Your task to perform on an android device: set default search engine in the chrome app Image 0: 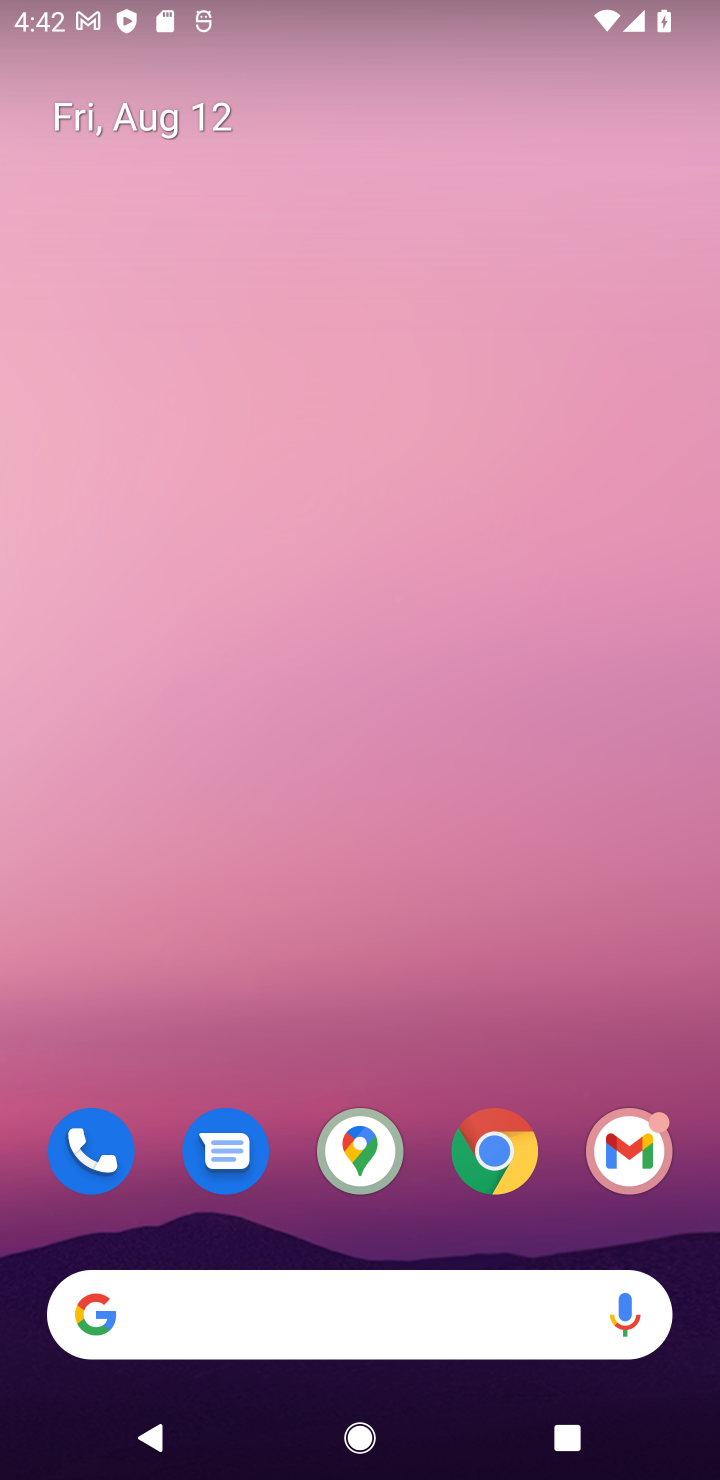
Step 0: drag from (384, 1007) to (585, 101)
Your task to perform on an android device: set default search engine in the chrome app Image 1: 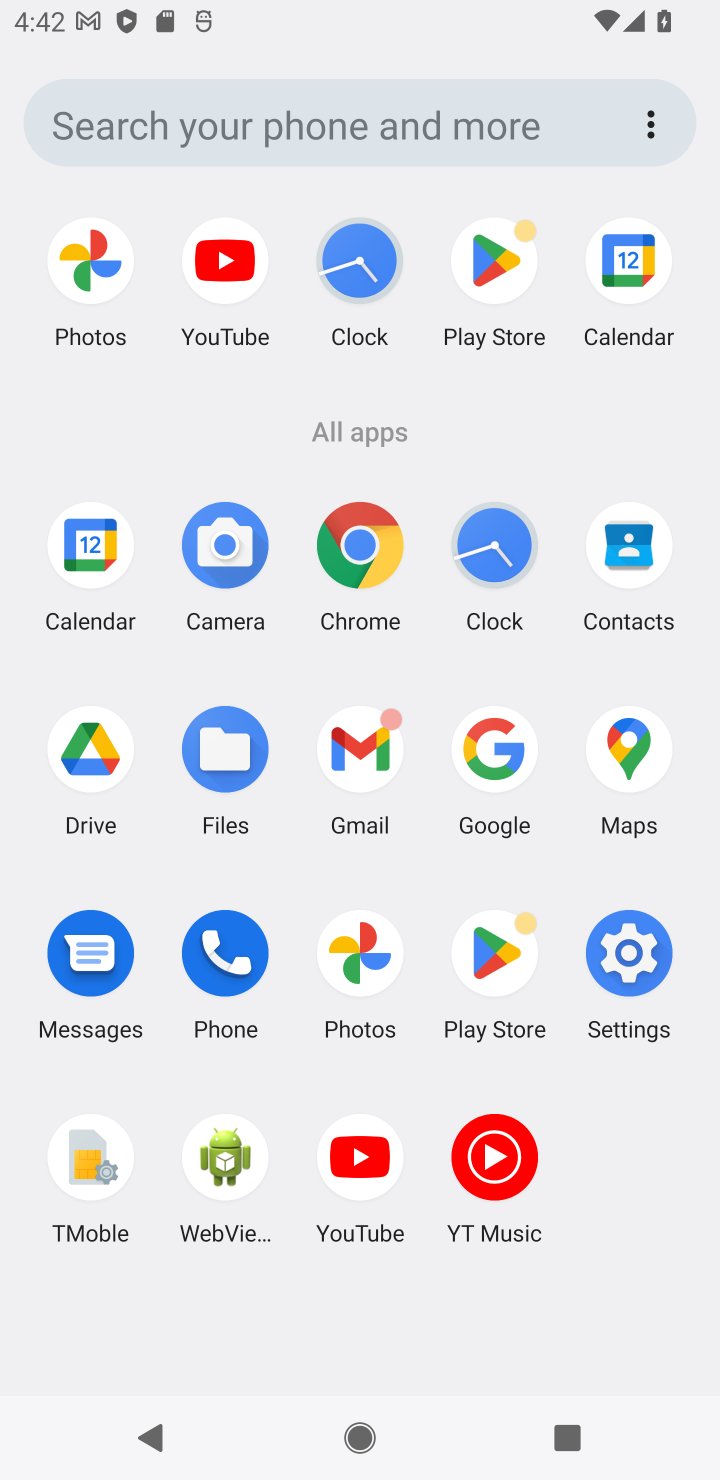
Step 1: click (346, 534)
Your task to perform on an android device: set default search engine in the chrome app Image 2: 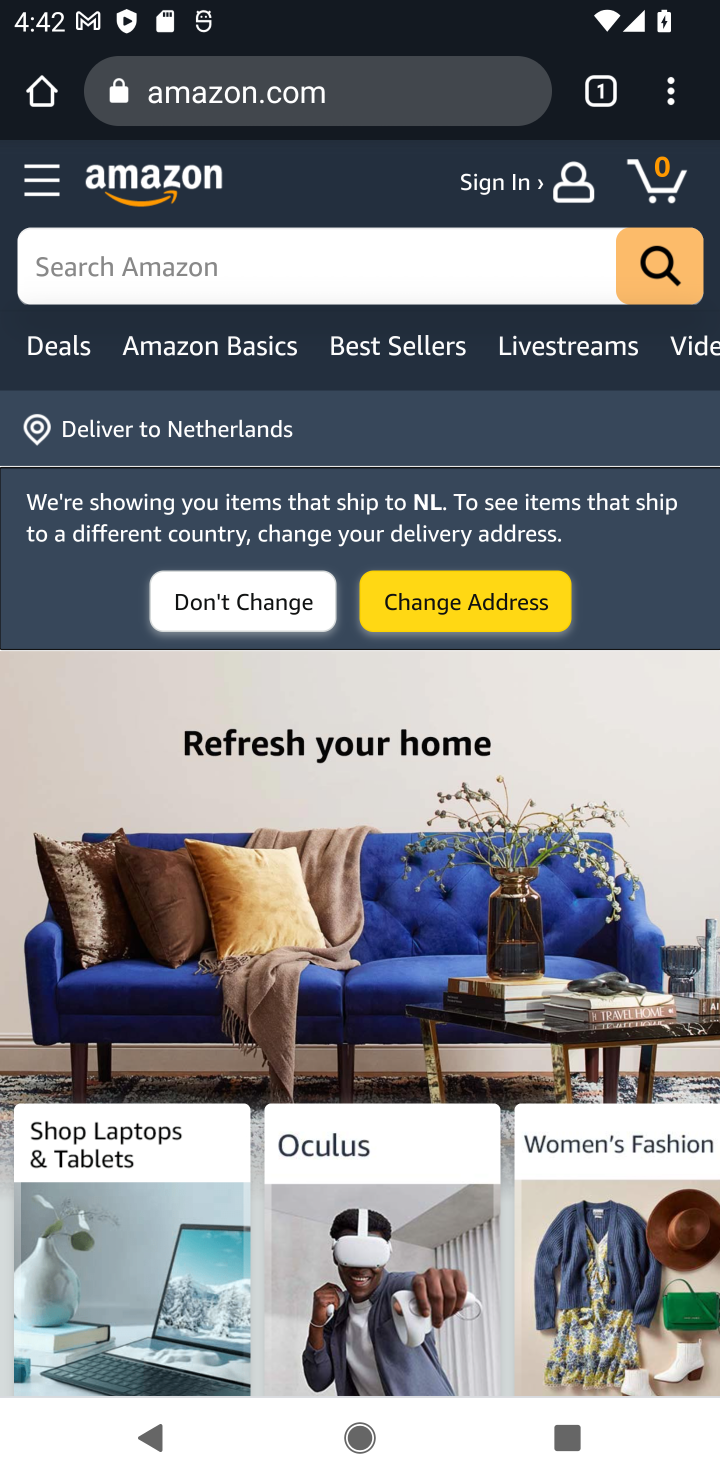
Step 2: task complete